Your task to perform on an android device: Open calendar and show me the second week of next month Image 0: 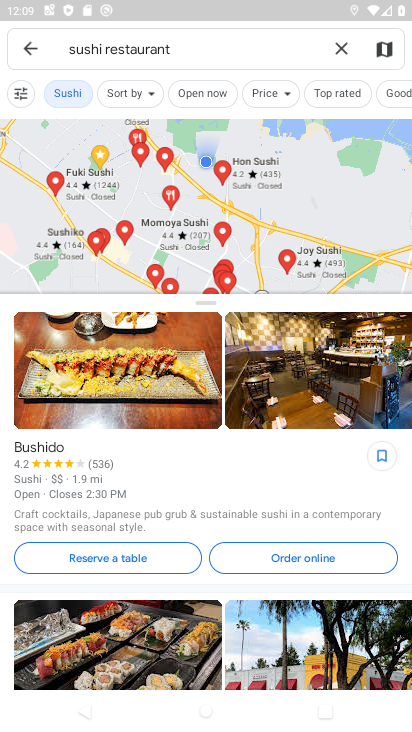
Step 0: press home button
Your task to perform on an android device: Open calendar and show me the second week of next month Image 1: 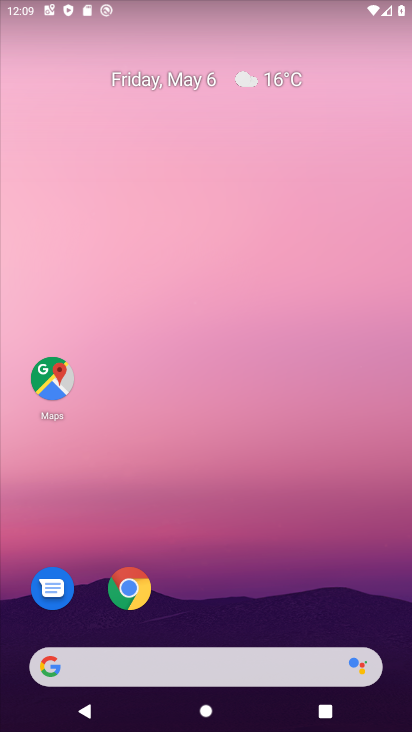
Step 1: drag from (200, 523) to (236, 28)
Your task to perform on an android device: Open calendar and show me the second week of next month Image 2: 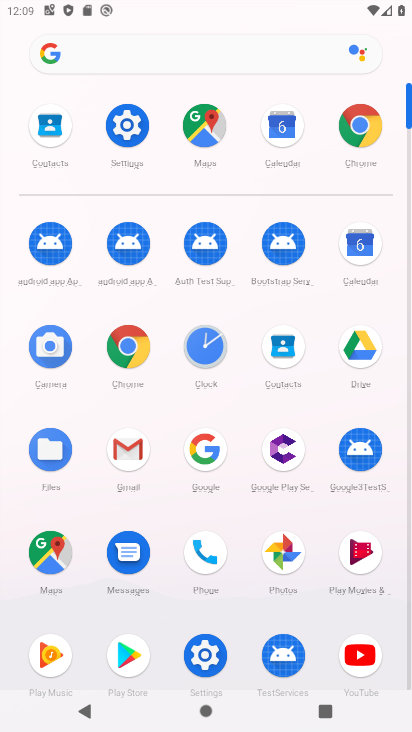
Step 2: click (282, 127)
Your task to perform on an android device: Open calendar and show me the second week of next month Image 3: 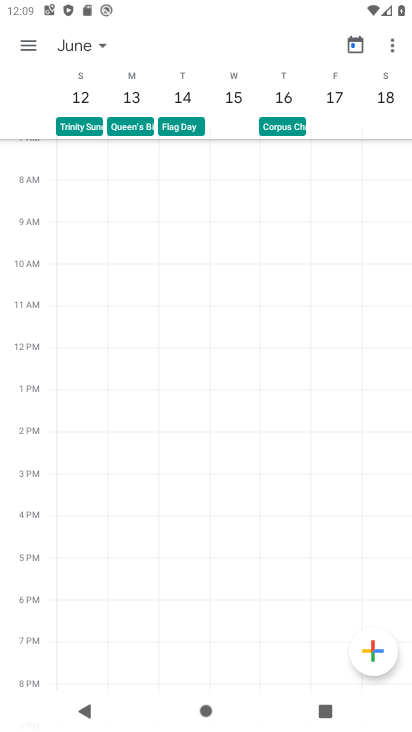
Step 3: task complete